Your task to perform on an android device: make emails show in primary in the gmail app Image 0: 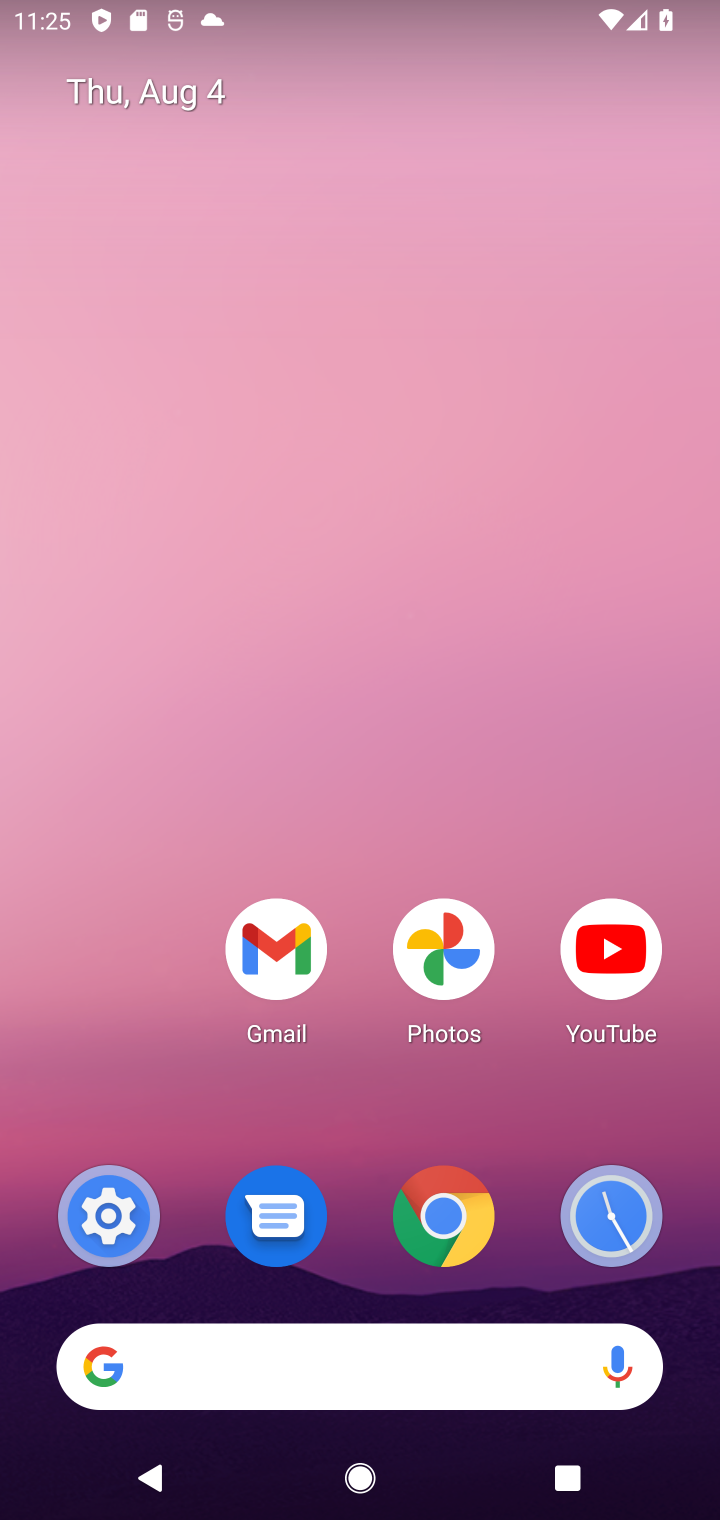
Step 0: drag from (335, 1373) to (314, 364)
Your task to perform on an android device: make emails show in primary in the gmail app Image 1: 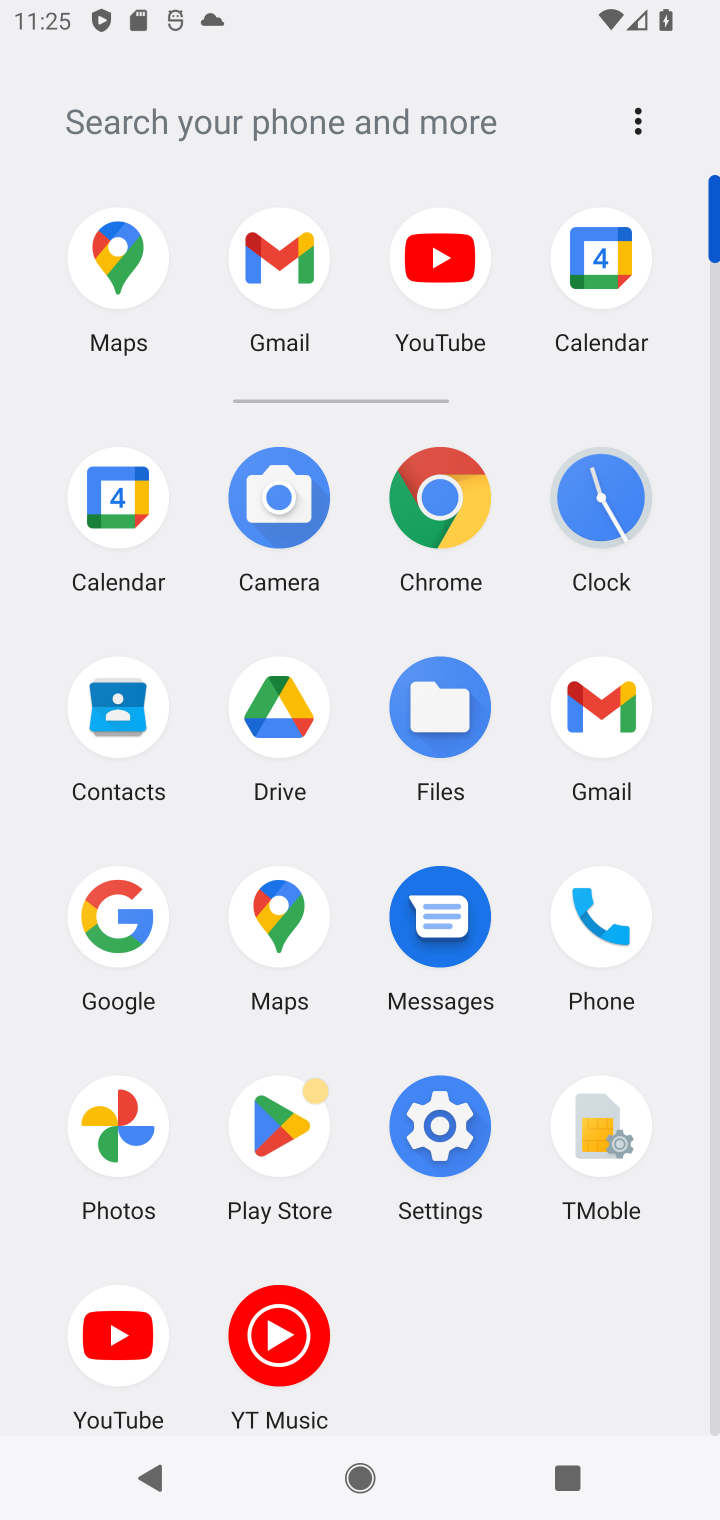
Step 1: click (281, 258)
Your task to perform on an android device: make emails show in primary in the gmail app Image 2: 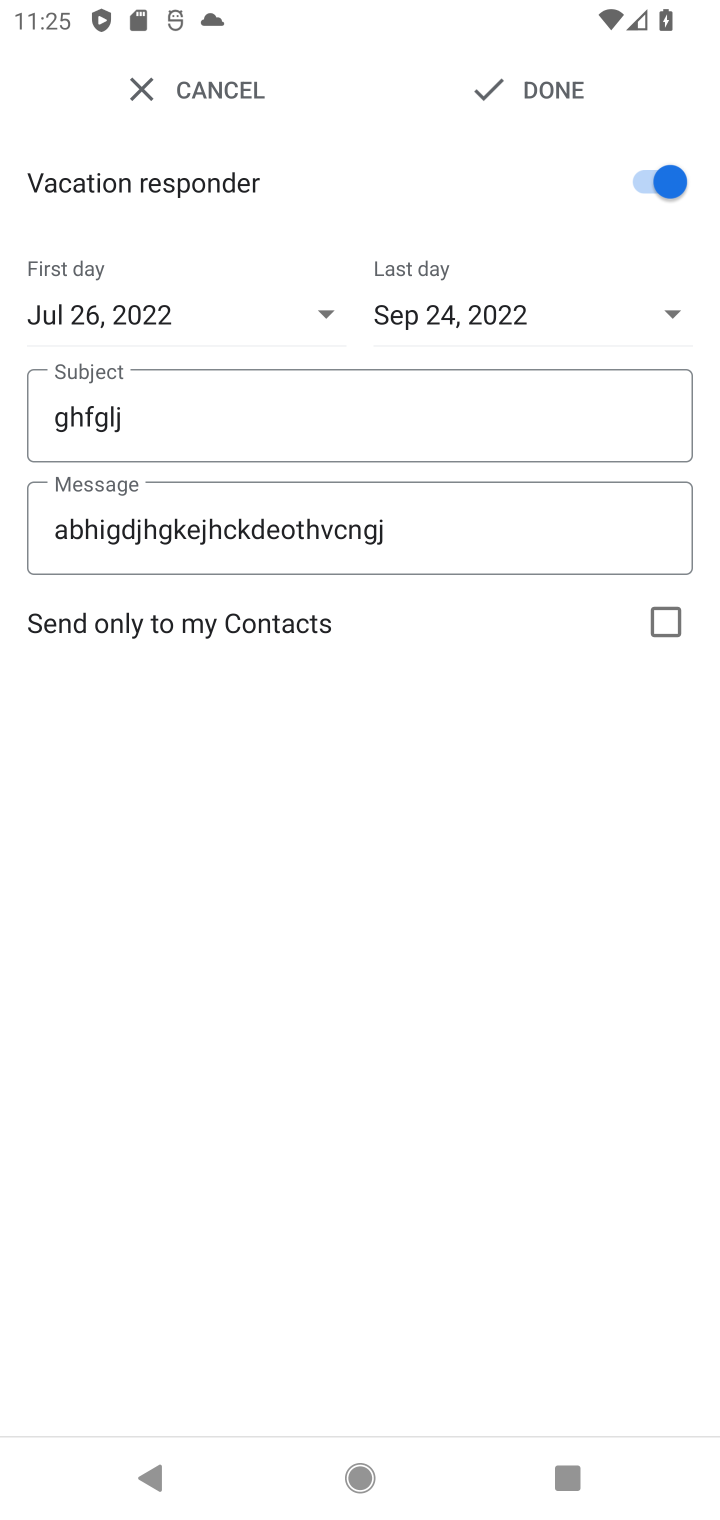
Step 2: press back button
Your task to perform on an android device: make emails show in primary in the gmail app Image 3: 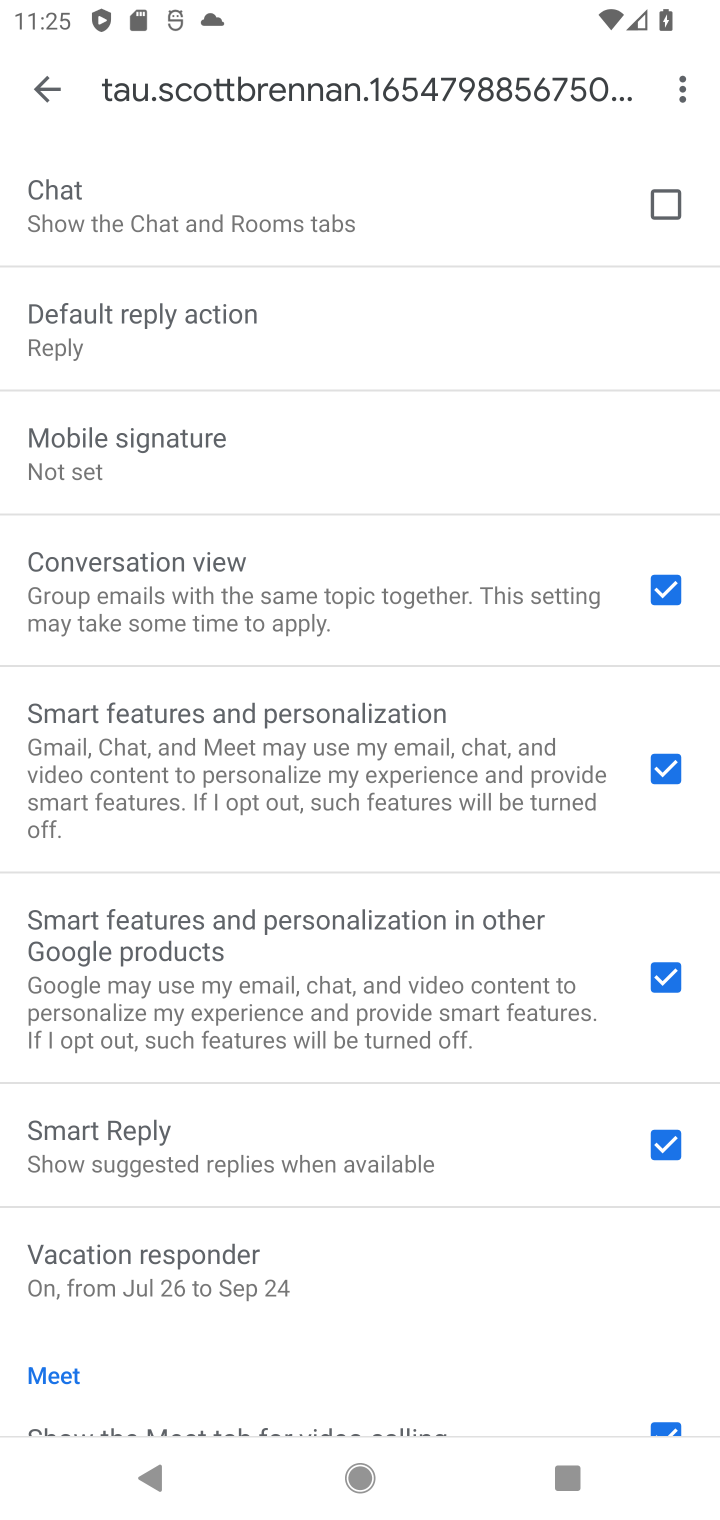
Step 3: drag from (334, 456) to (334, 749)
Your task to perform on an android device: make emails show in primary in the gmail app Image 4: 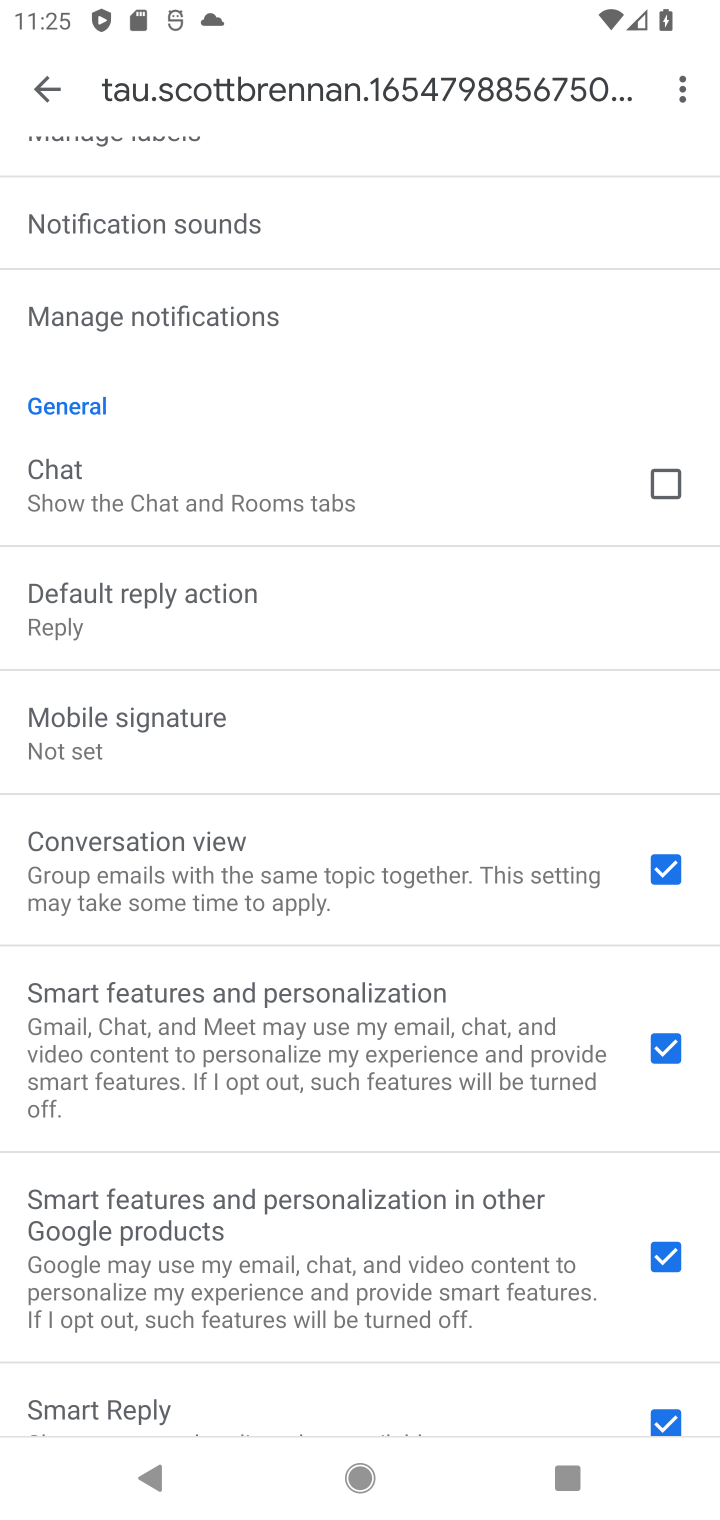
Step 4: drag from (374, 251) to (390, 535)
Your task to perform on an android device: make emails show in primary in the gmail app Image 5: 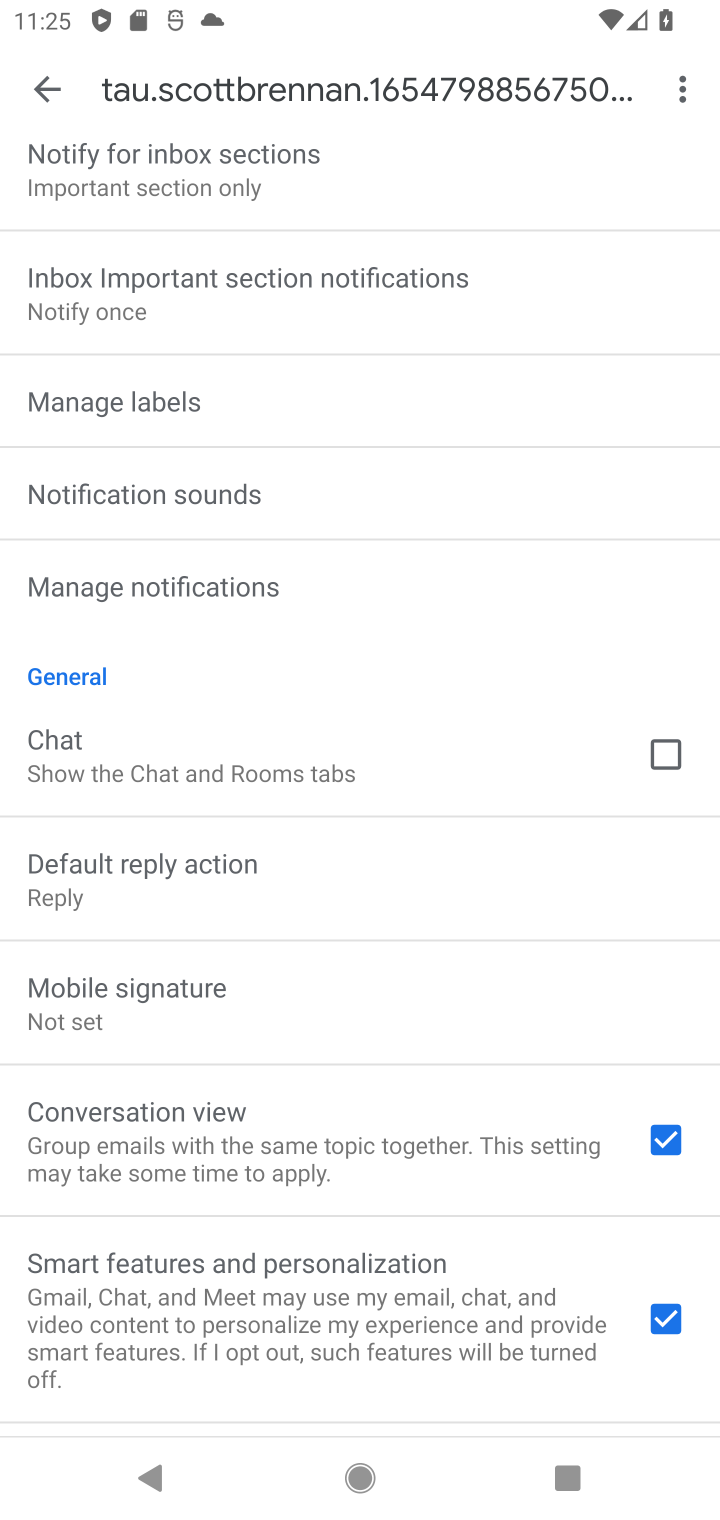
Step 5: drag from (297, 202) to (260, 516)
Your task to perform on an android device: make emails show in primary in the gmail app Image 6: 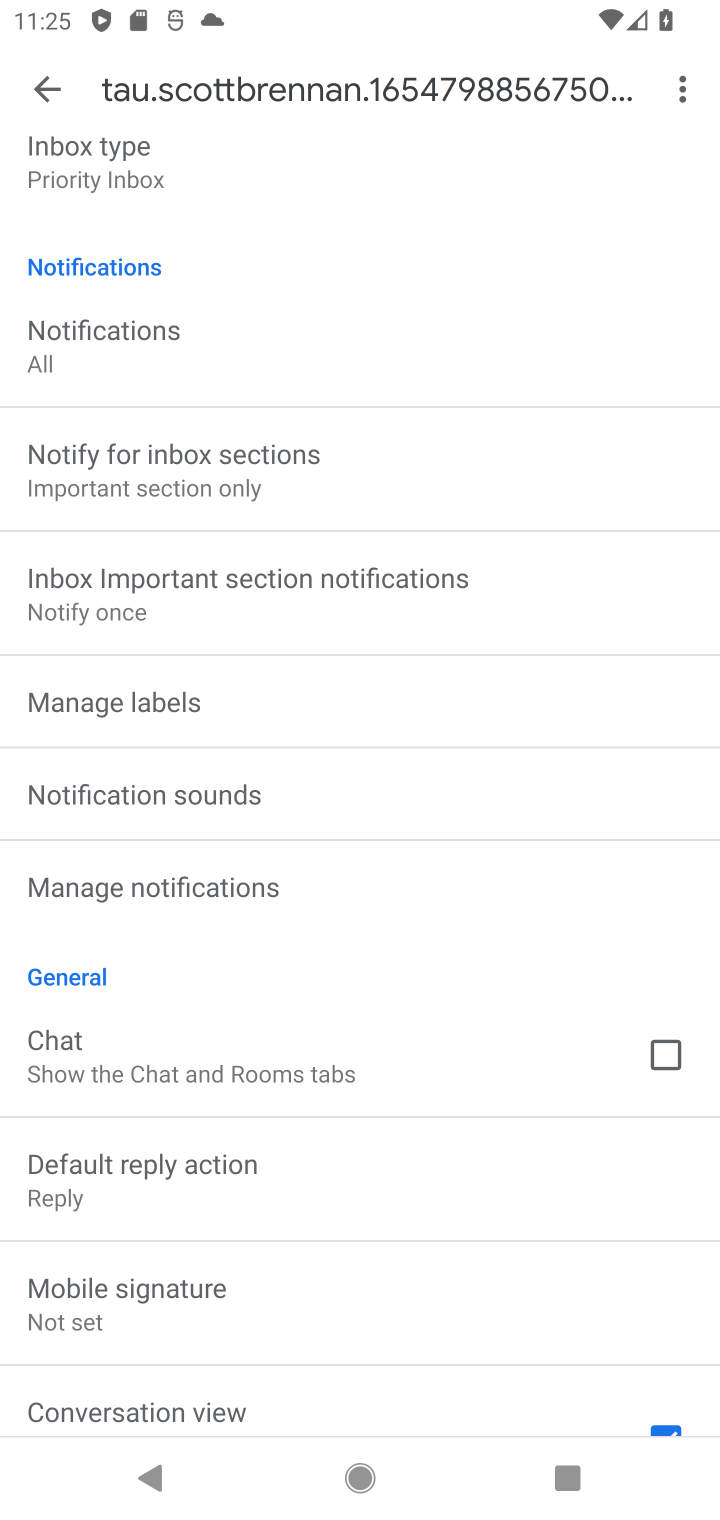
Step 6: drag from (273, 217) to (288, 600)
Your task to perform on an android device: make emails show in primary in the gmail app Image 7: 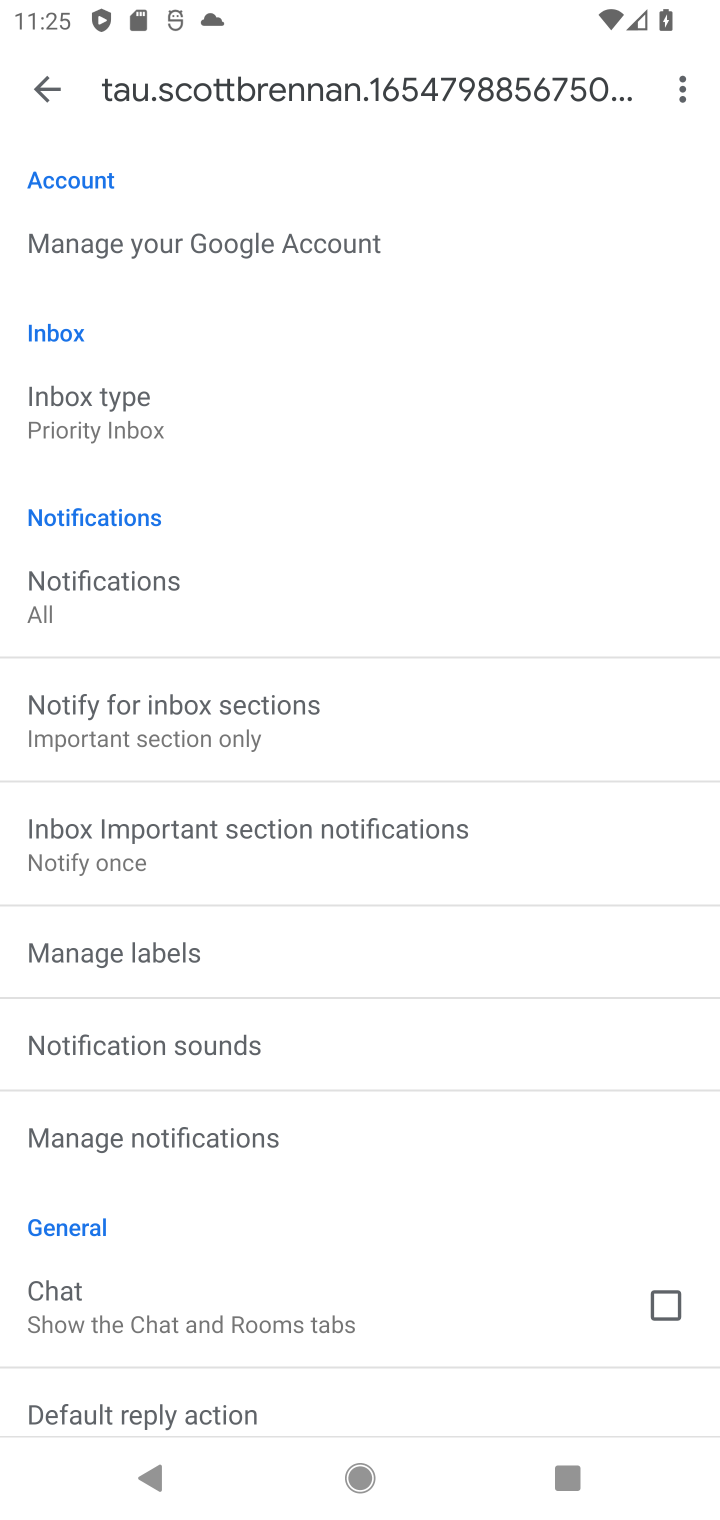
Step 7: click (157, 448)
Your task to perform on an android device: make emails show in primary in the gmail app Image 8: 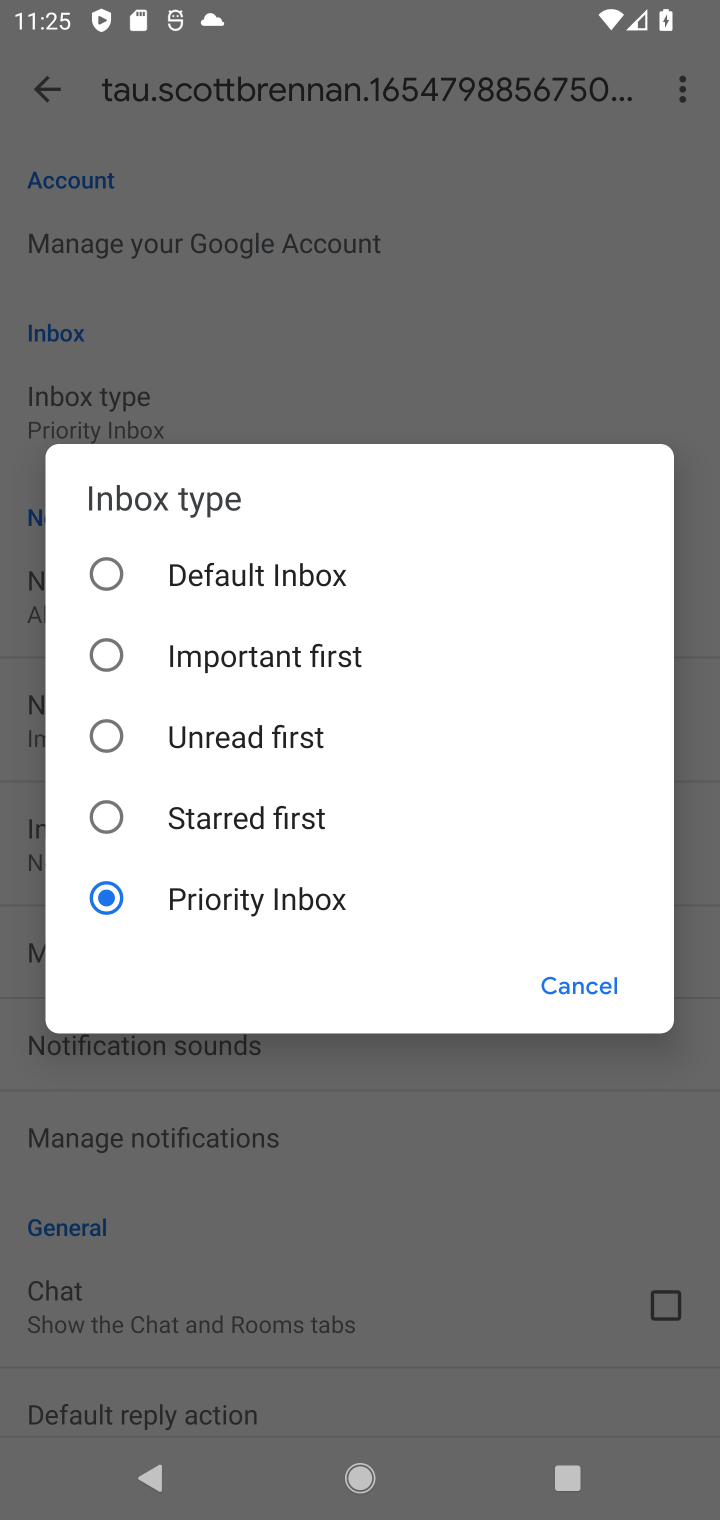
Step 8: click (89, 564)
Your task to perform on an android device: make emails show in primary in the gmail app Image 9: 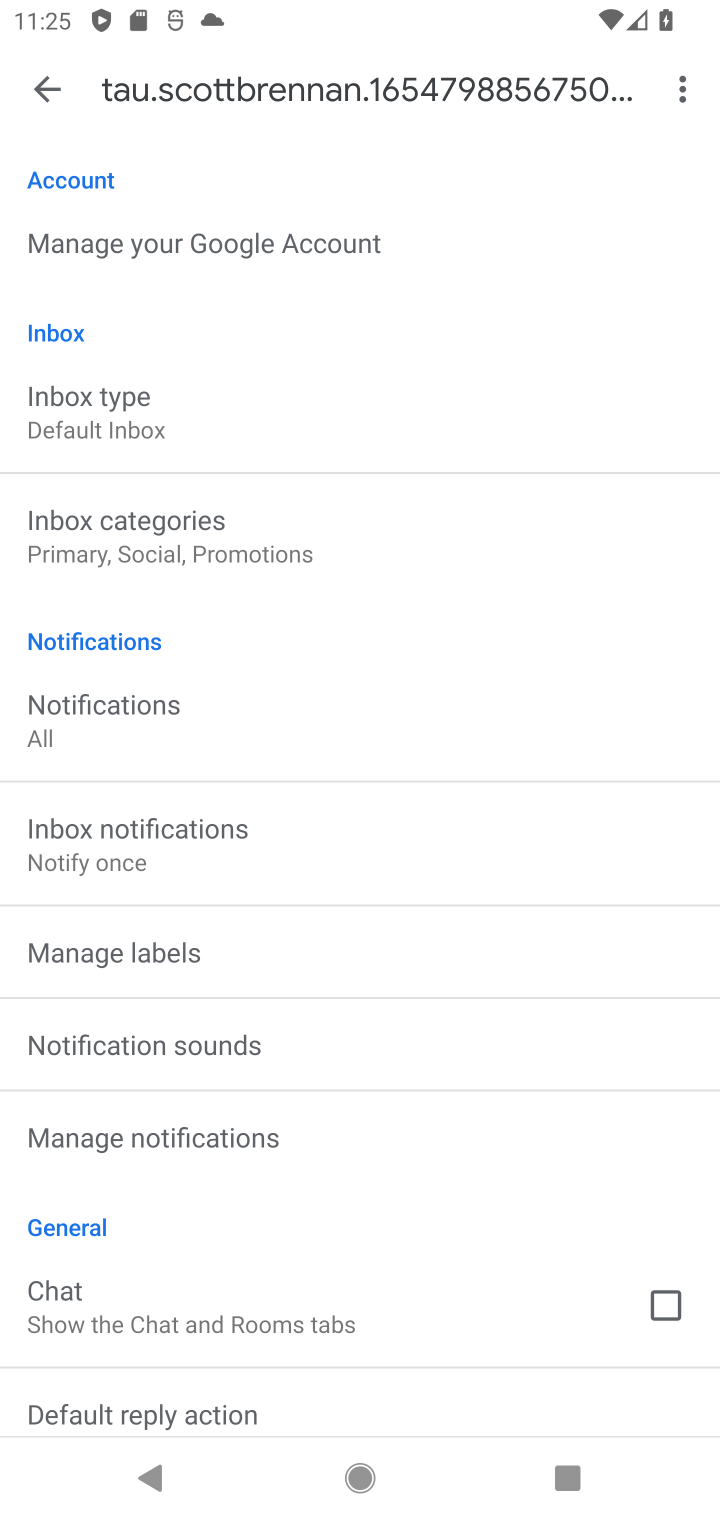
Step 9: click (169, 535)
Your task to perform on an android device: make emails show in primary in the gmail app Image 10: 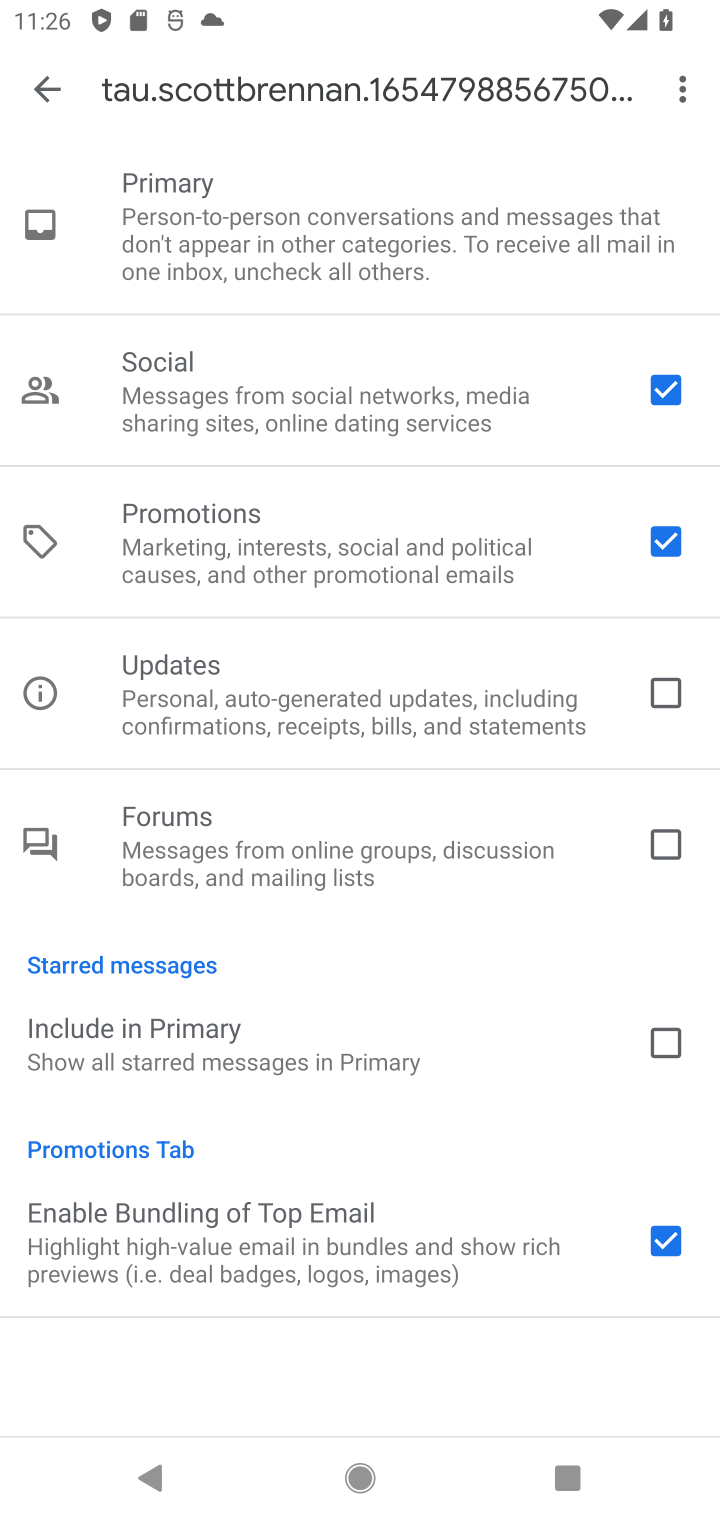
Step 10: click (678, 402)
Your task to perform on an android device: make emails show in primary in the gmail app Image 11: 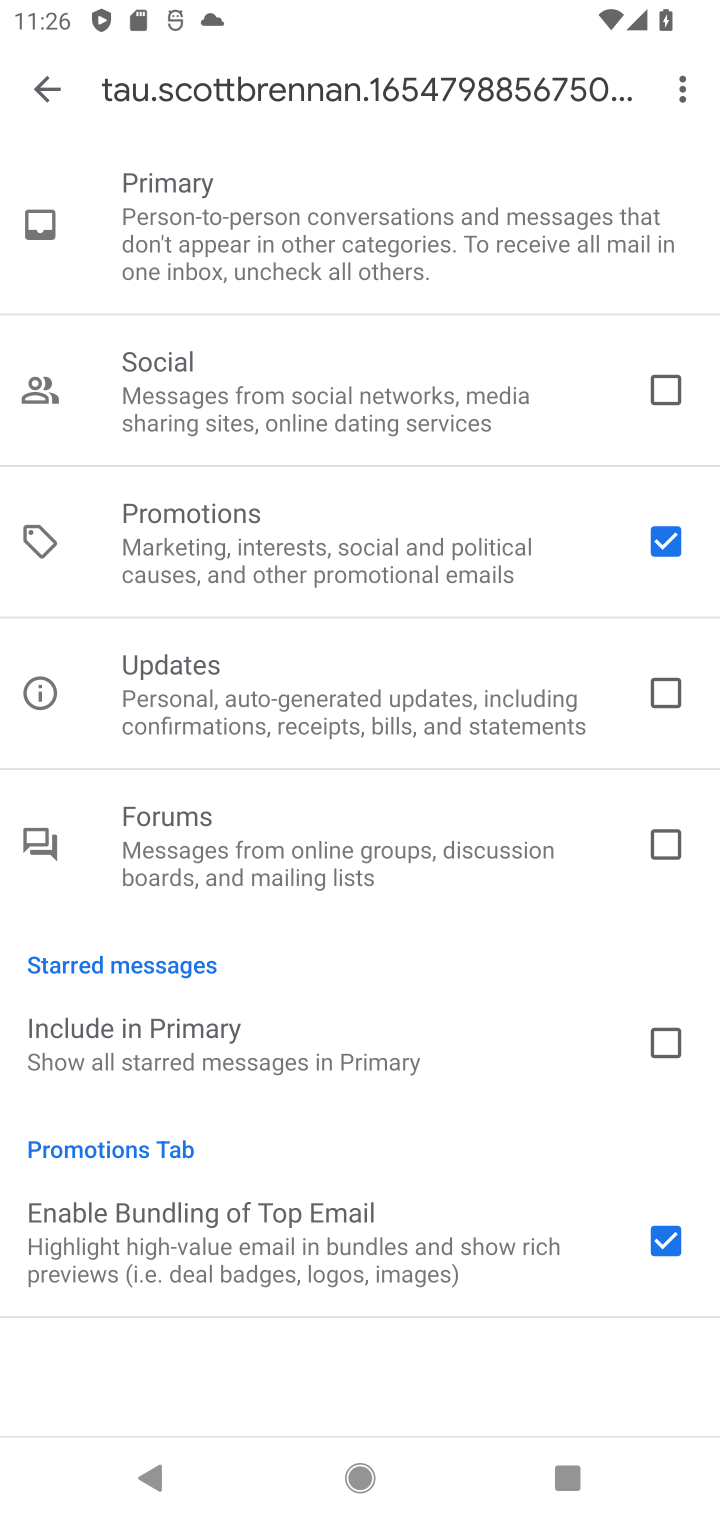
Step 11: click (652, 541)
Your task to perform on an android device: make emails show in primary in the gmail app Image 12: 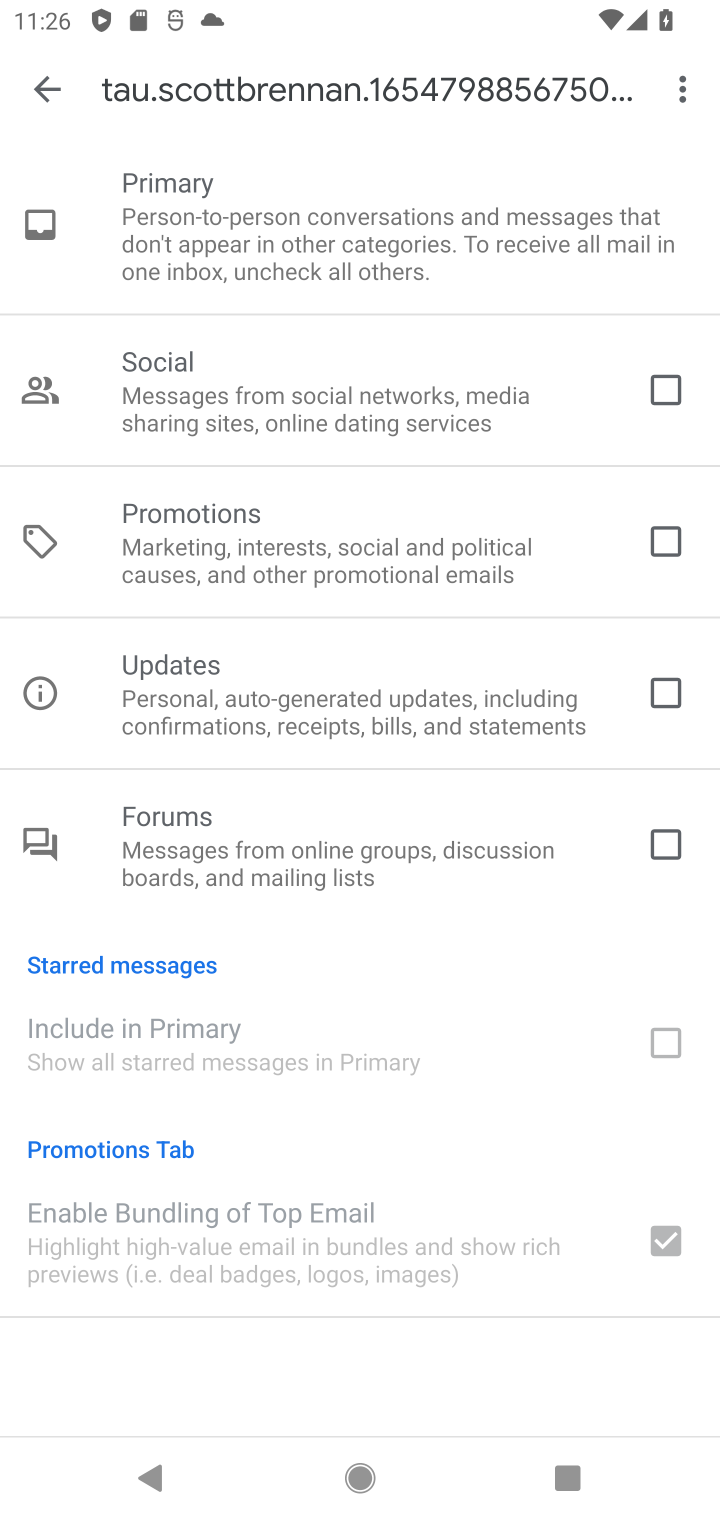
Step 12: task complete